Your task to perform on an android device: turn on sleep mode Image 0: 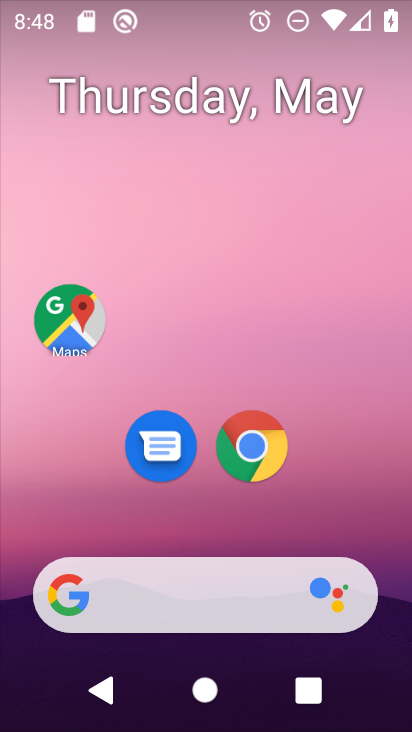
Step 0: press home button
Your task to perform on an android device: turn on sleep mode Image 1: 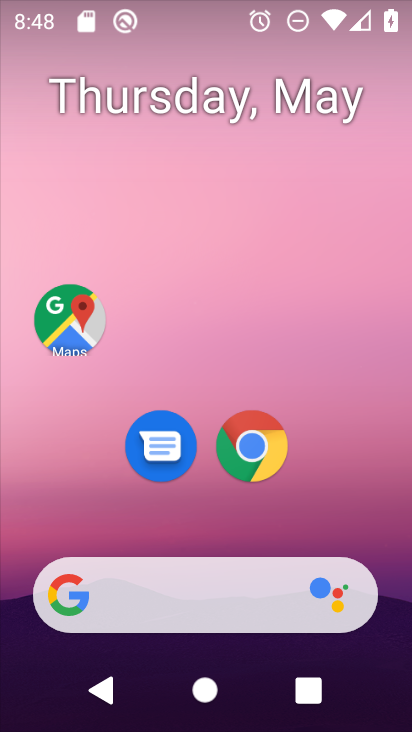
Step 1: drag from (338, 512) to (407, 87)
Your task to perform on an android device: turn on sleep mode Image 2: 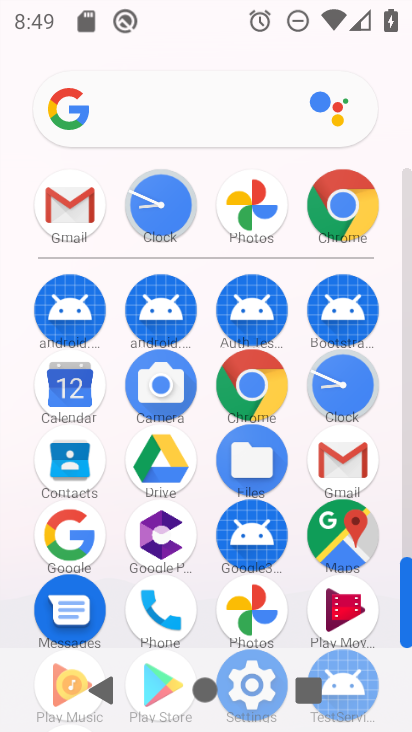
Step 2: drag from (292, 592) to (273, 282)
Your task to perform on an android device: turn on sleep mode Image 3: 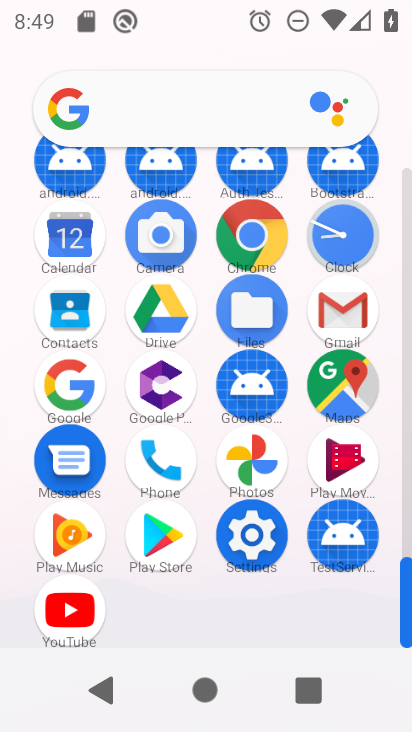
Step 3: click (259, 521)
Your task to perform on an android device: turn on sleep mode Image 4: 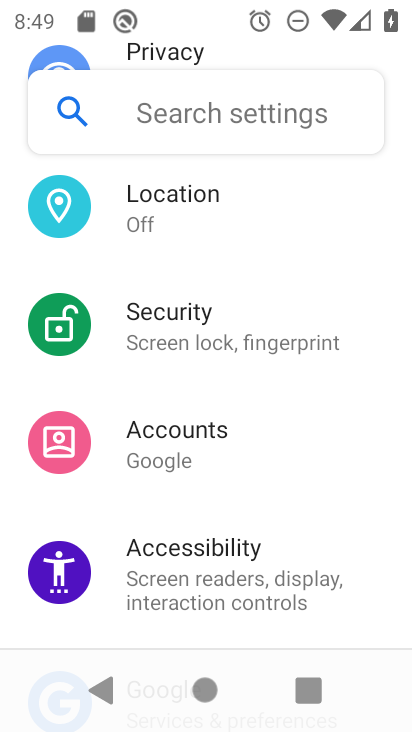
Step 4: click (216, 112)
Your task to perform on an android device: turn on sleep mode Image 5: 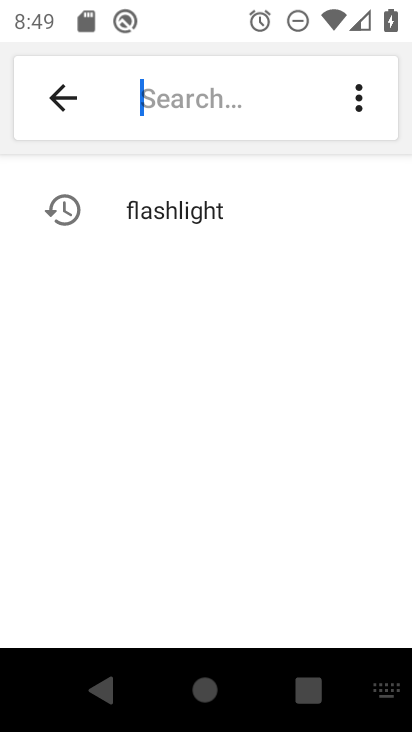
Step 5: type "sleep mode"
Your task to perform on an android device: turn on sleep mode Image 6: 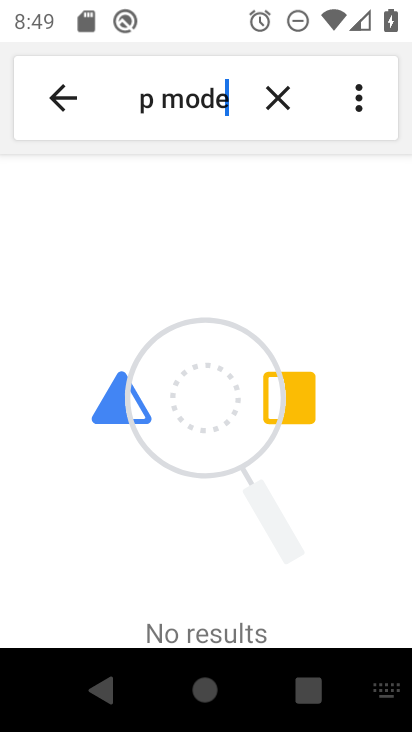
Step 6: task complete